Your task to perform on an android device: check battery use Image 0: 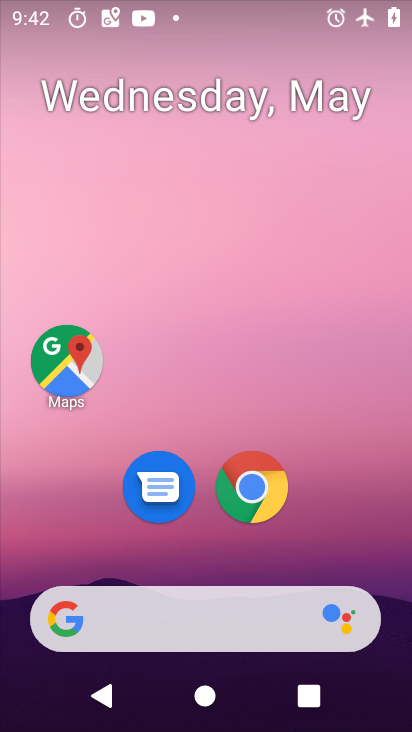
Step 0: drag from (212, 568) to (199, 274)
Your task to perform on an android device: check battery use Image 1: 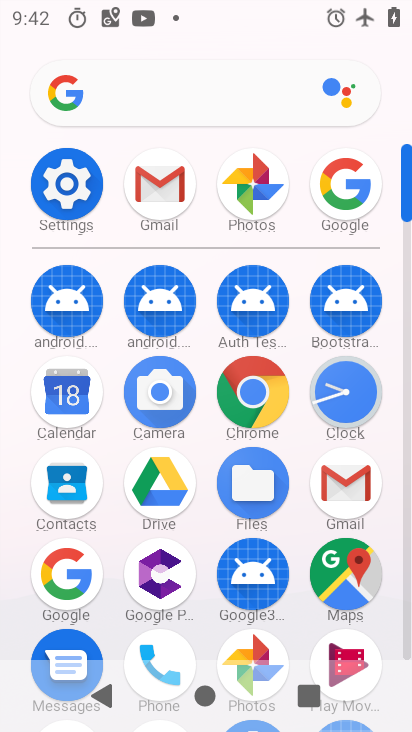
Step 1: click (91, 185)
Your task to perform on an android device: check battery use Image 2: 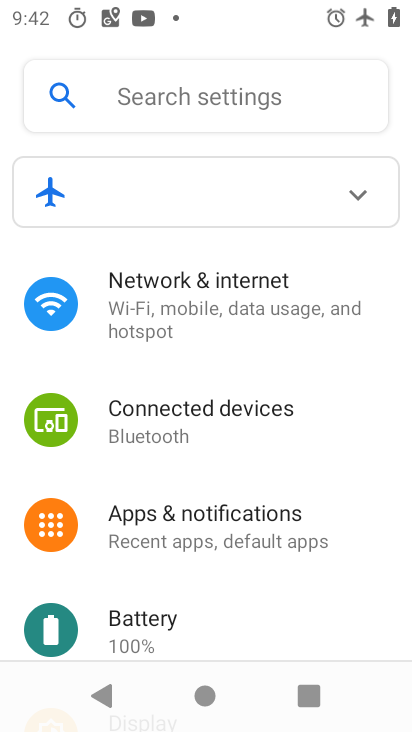
Step 2: drag from (322, 647) to (324, 412)
Your task to perform on an android device: check battery use Image 3: 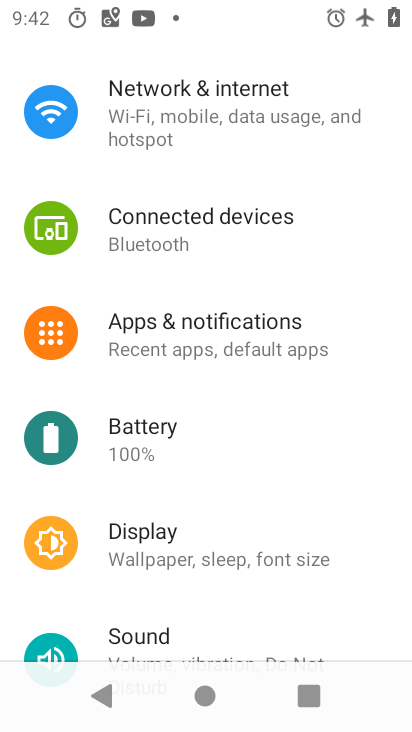
Step 3: click (209, 428)
Your task to perform on an android device: check battery use Image 4: 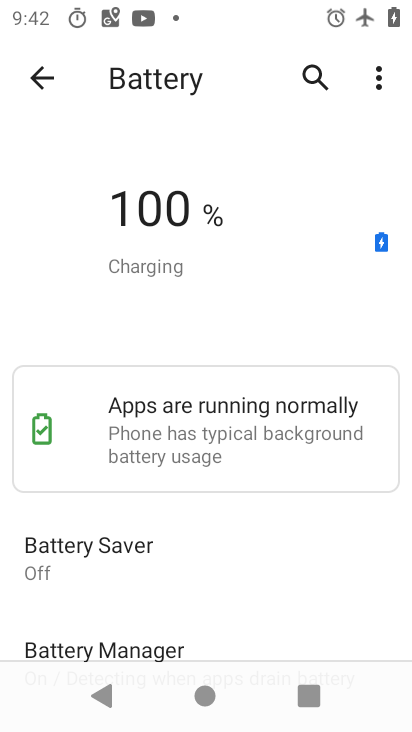
Step 4: click (381, 74)
Your task to perform on an android device: check battery use Image 5: 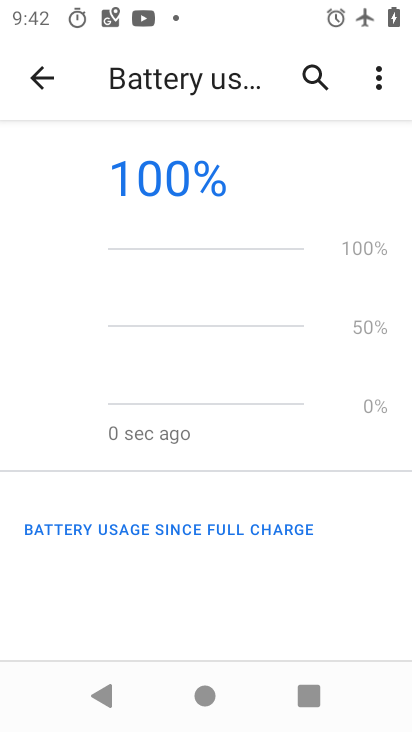
Step 5: click (362, 86)
Your task to perform on an android device: check battery use Image 6: 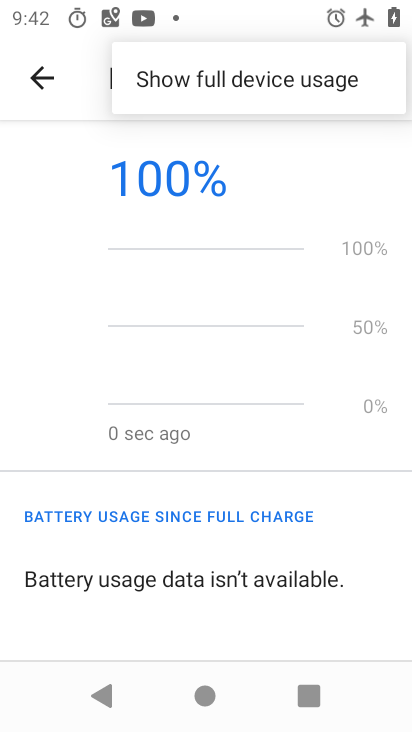
Step 6: click (259, 180)
Your task to perform on an android device: check battery use Image 7: 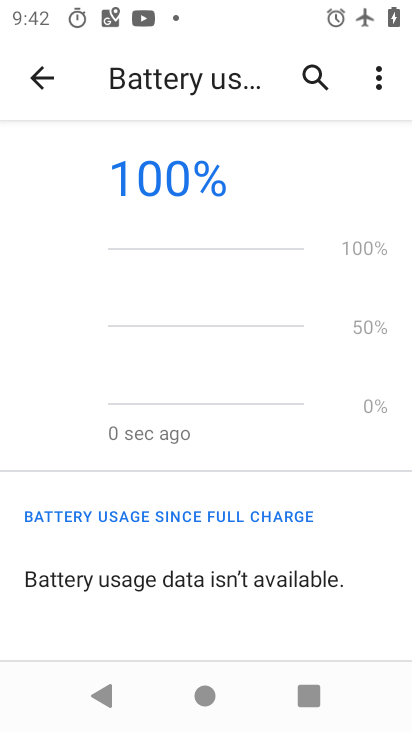
Step 7: task complete